Your task to perform on an android device: Check the weather Image 0: 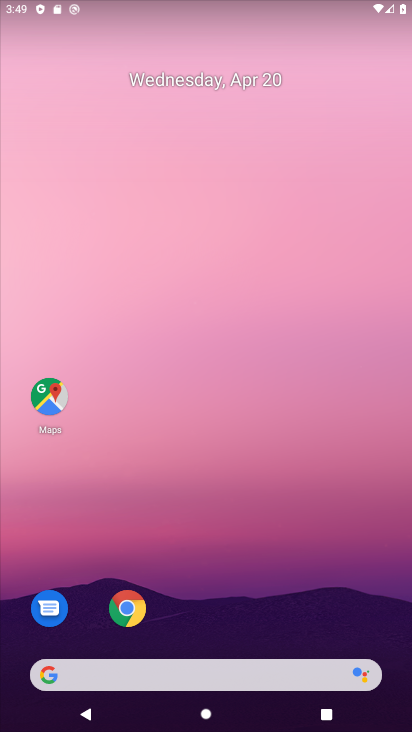
Step 0: drag from (239, 695) to (213, 3)
Your task to perform on an android device: Check the weather Image 1: 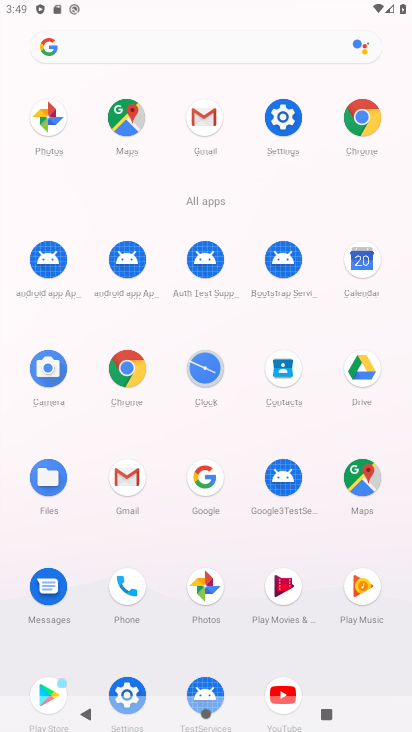
Step 1: click (161, 48)
Your task to perform on an android device: Check the weather Image 2: 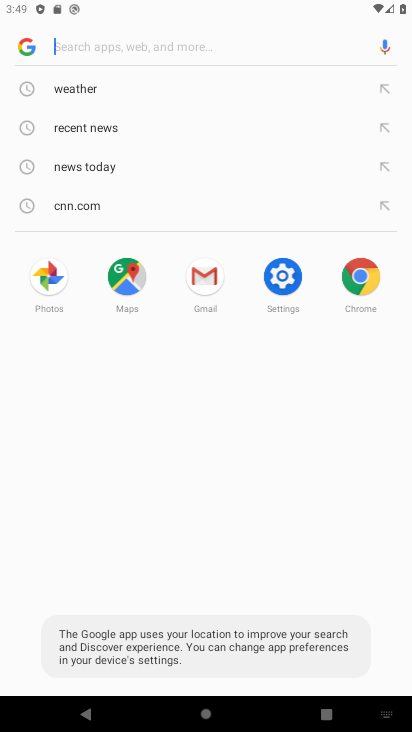
Step 2: click (97, 89)
Your task to perform on an android device: Check the weather Image 3: 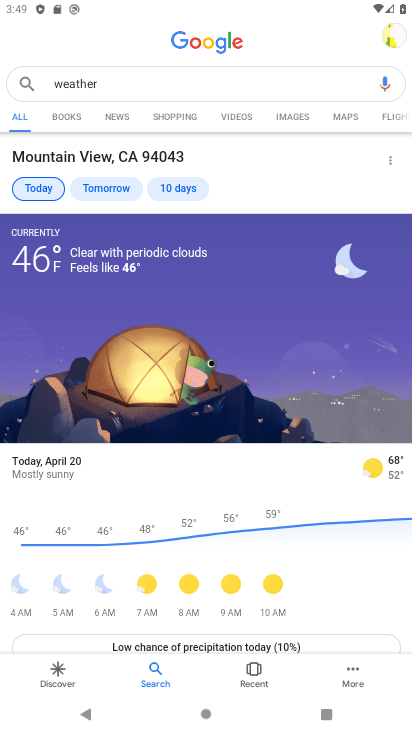
Step 3: task complete